Your task to perform on an android device: Open Google Maps and go to "Timeline" Image 0: 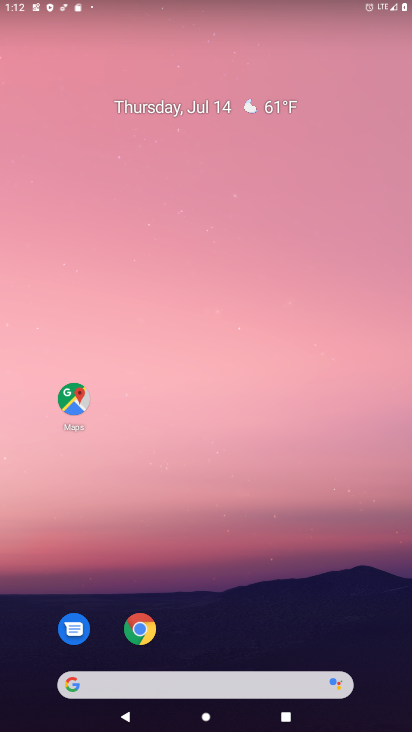
Step 0: click (73, 403)
Your task to perform on an android device: Open Google Maps and go to "Timeline" Image 1: 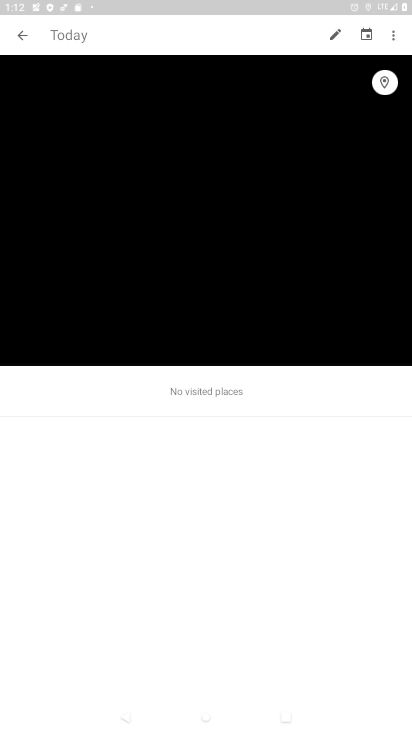
Step 1: task complete